Your task to perform on an android device: find which apps use the phone's location Image 0: 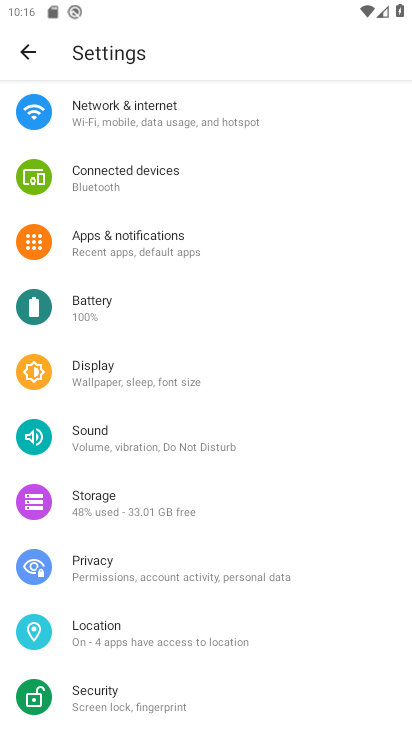
Step 0: click (187, 646)
Your task to perform on an android device: find which apps use the phone's location Image 1: 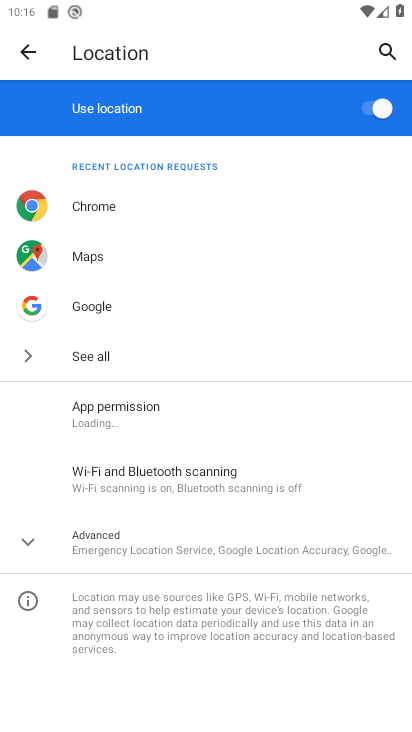
Step 1: click (207, 543)
Your task to perform on an android device: find which apps use the phone's location Image 2: 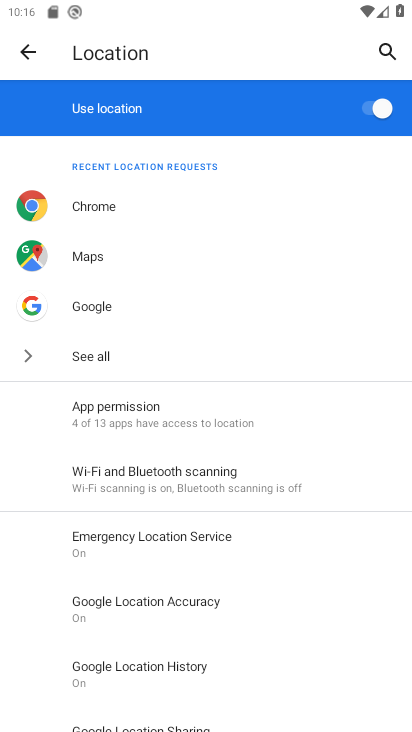
Step 2: drag from (276, 662) to (347, 343)
Your task to perform on an android device: find which apps use the phone's location Image 3: 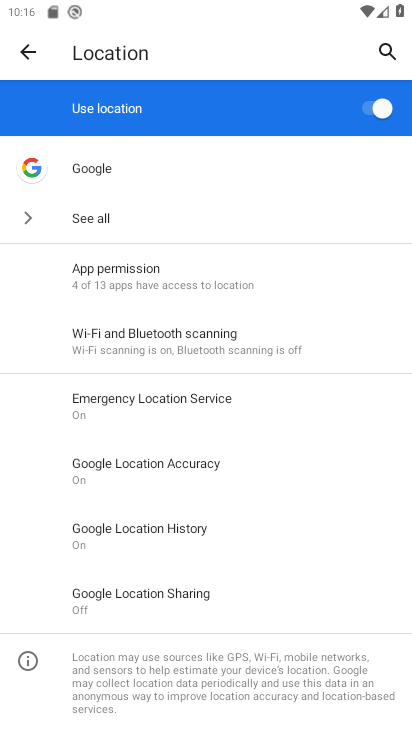
Step 3: drag from (271, 206) to (273, 544)
Your task to perform on an android device: find which apps use the phone's location Image 4: 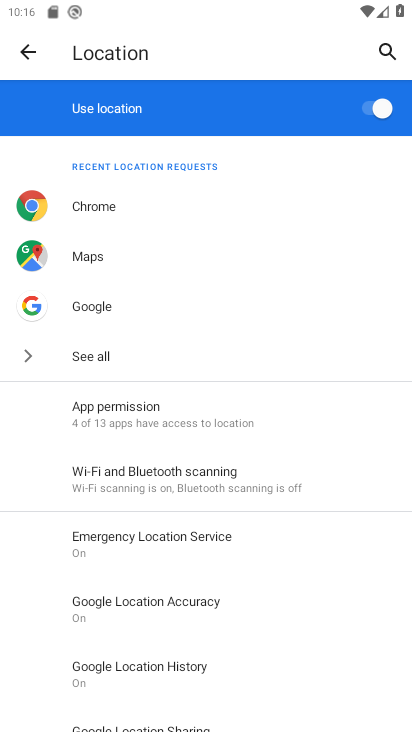
Step 4: click (92, 216)
Your task to perform on an android device: find which apps use the phone's location Image 5: 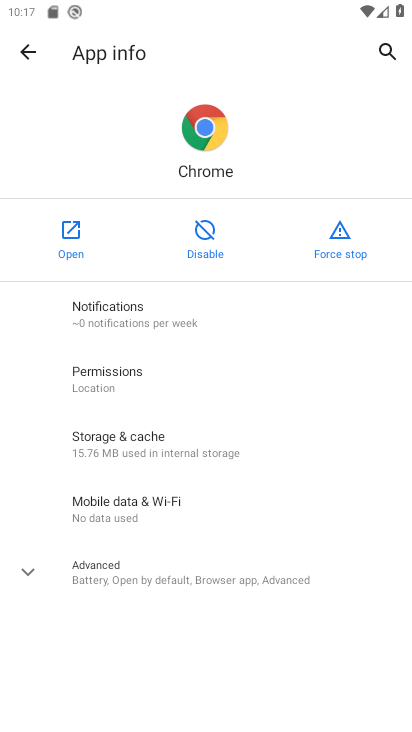
Step 5: task complete